Your task to perform on an android device: Show the shopping cart on target. Search for lenovo thinkpad on target, select the first entry, add it to the cart, then select checkout. Image 0: 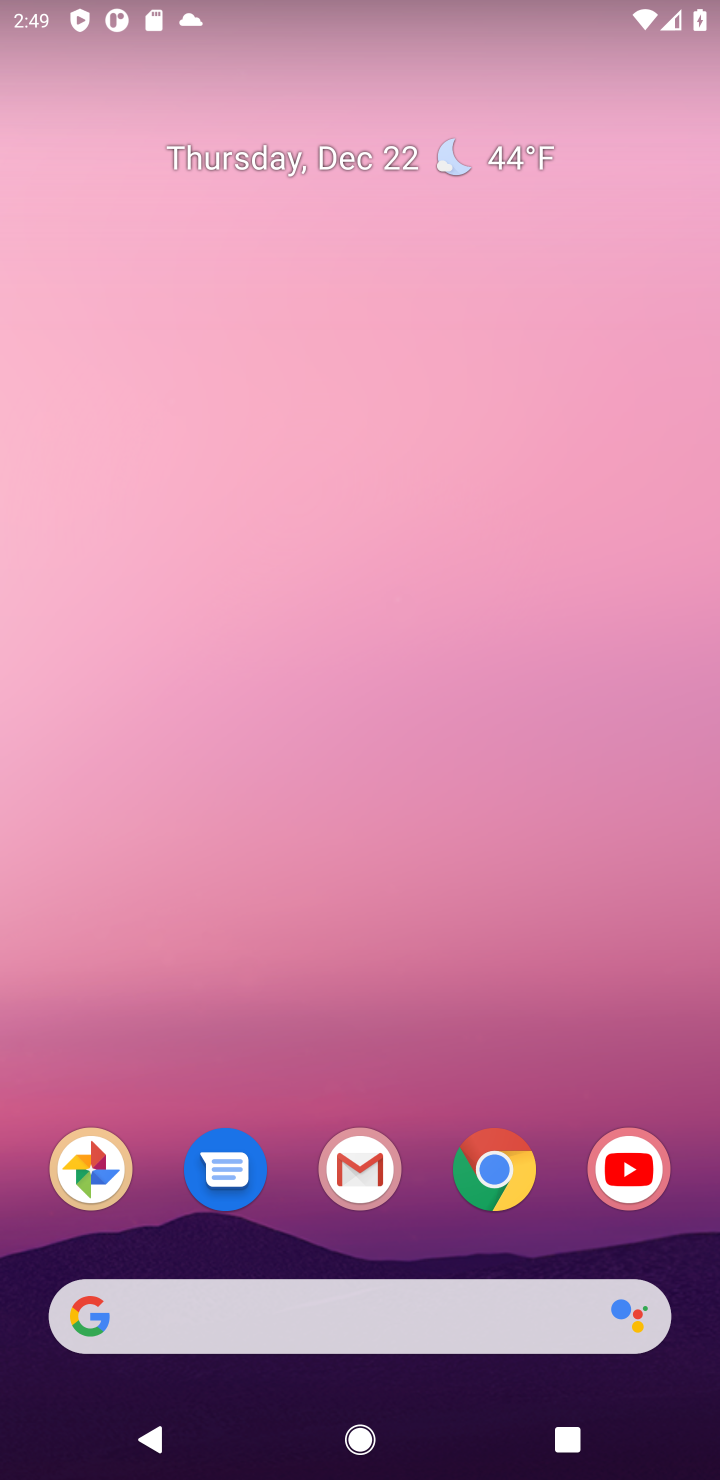
Step 0: click (466, 1169)
Your task to perform on an android device: Show the shopping cart on target. Search for lenovo thinkpad on target, select the first entry, add it to the cart, then select checkout. Image 1: 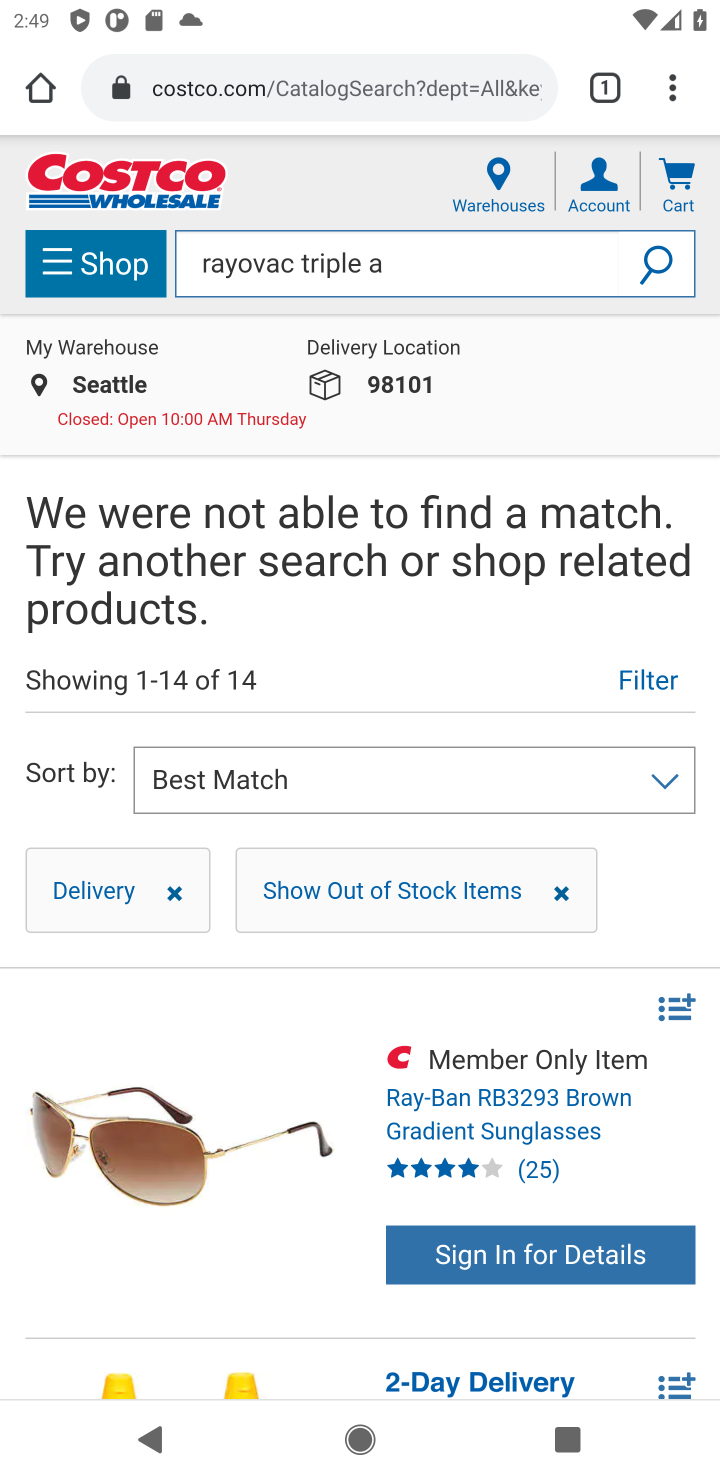
Step 1: click (270, 94)
Your task to perform on an android device: Show the shopping cart on target. Search for lenovo thinkpad on target, select the first entry, add it to the cart, then select checkout. Image 2: 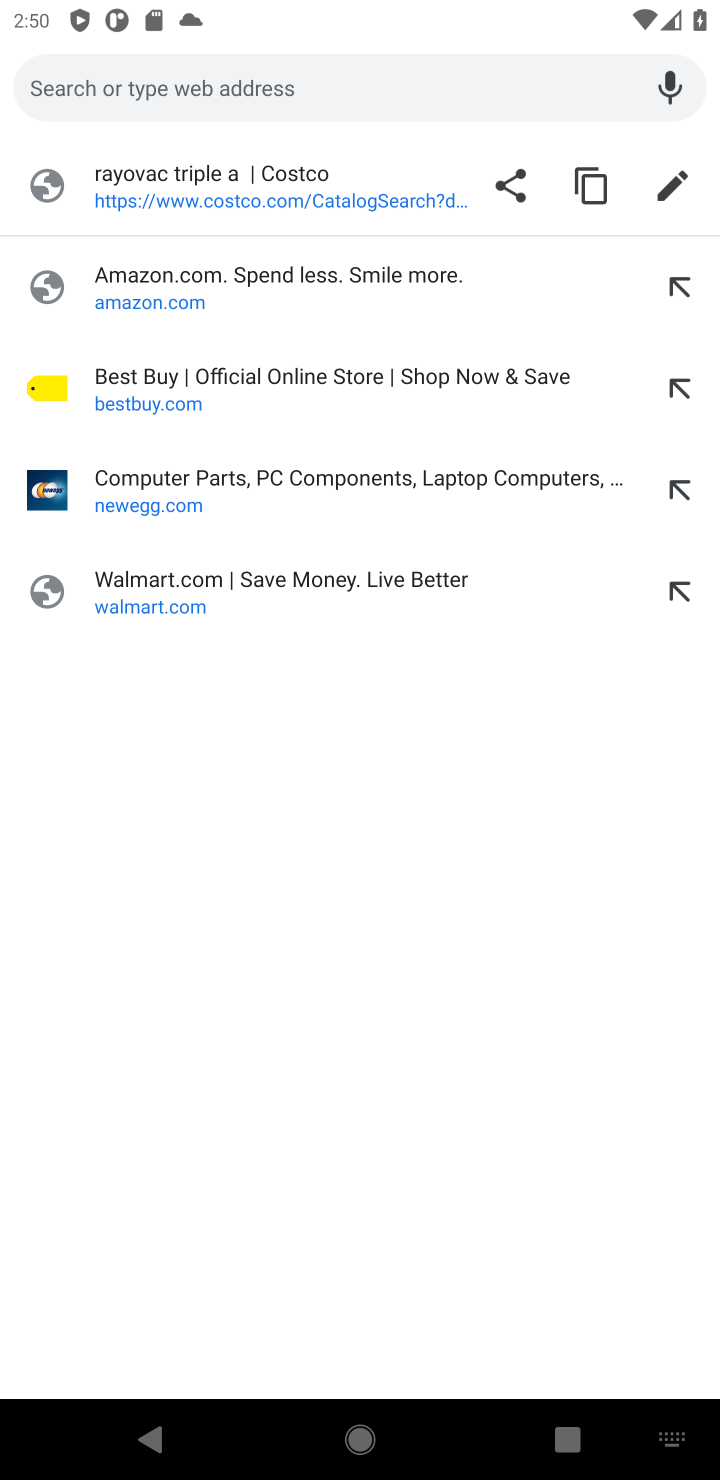
Step 2: type "target.com"
Your task to perform on an android device: Show the shopping cart on target. Search for lenovo thinkpad on target, select the first entry, add it to the cart, then select checkout. Image 3: 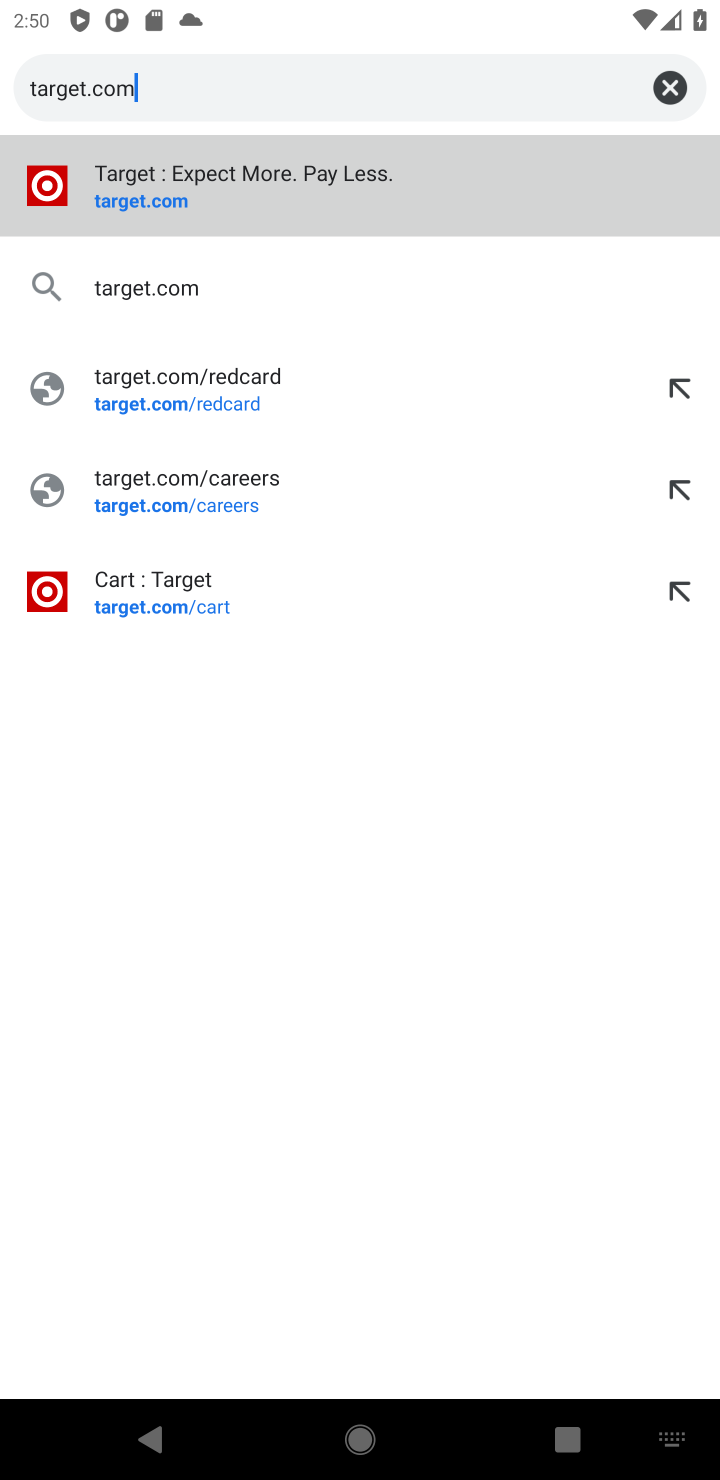
Step 3: click (133, 185)
Your task to perform on an android device: Show the shopping cart on target. Search for lenovo thinkpad on target, select the first entry, add it to the cart, then select checkout. Image 4: 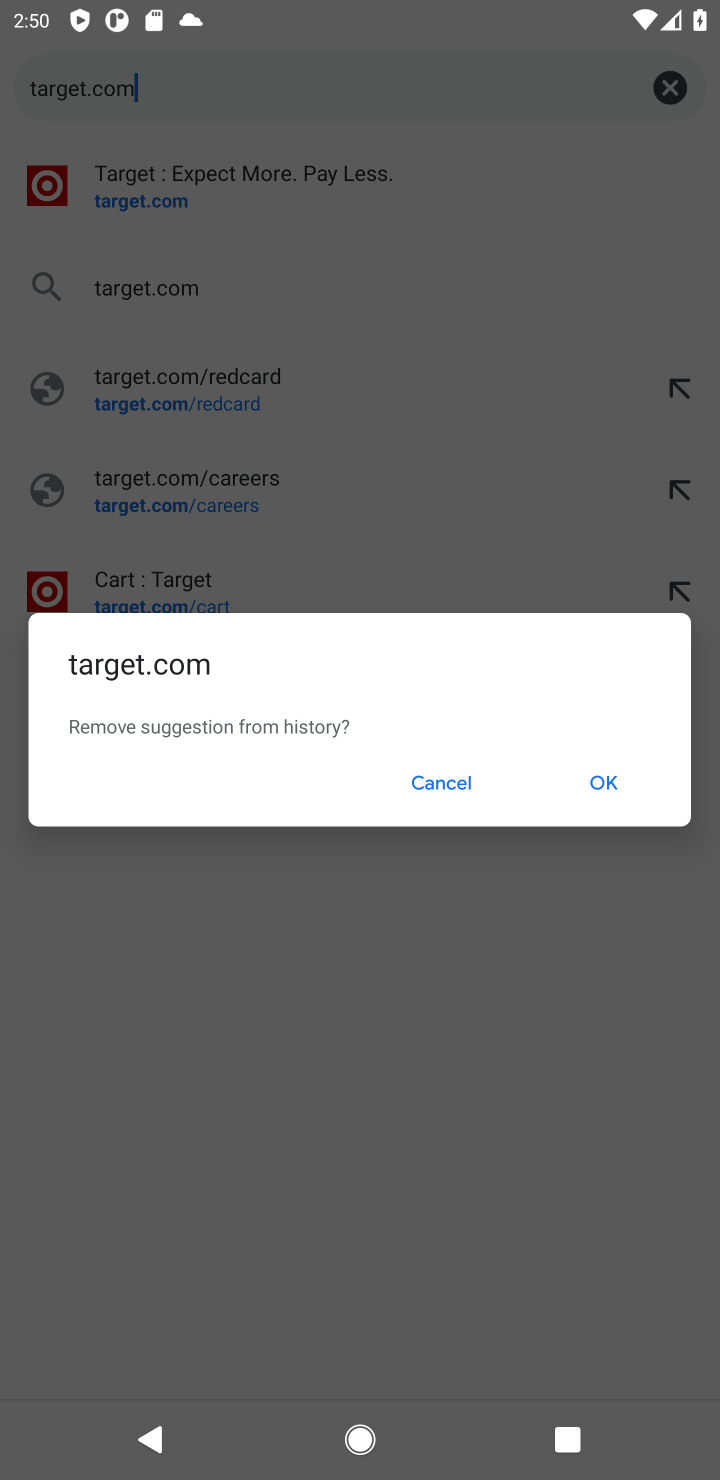
Step 4: click (448, 788)
Your task to perform on an android device: Show the shopping cart on target. Search for lenovo thinkpad on target, select the first entry, add it to the cart, then select checkout. Image 5: 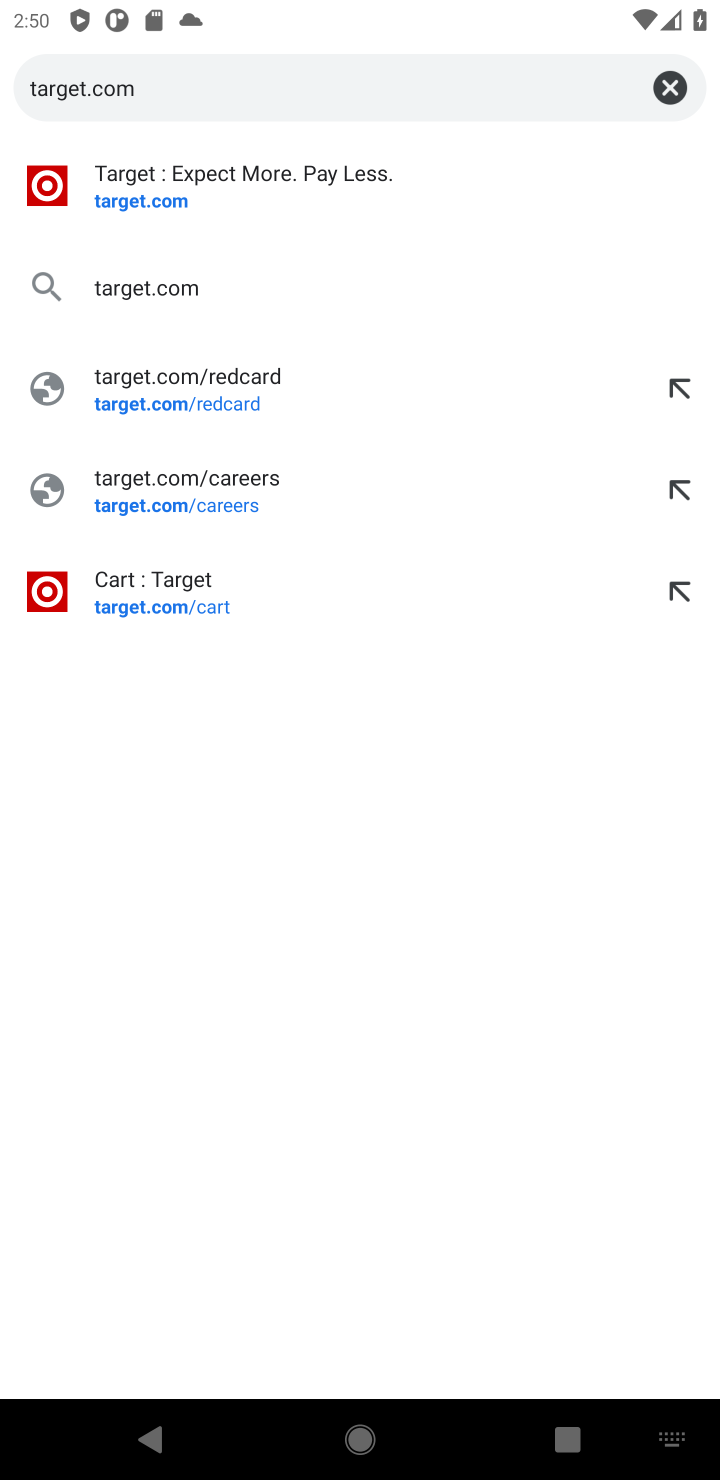
Step 5: click (117, 192)
Your task to perform on an android device: Show the shopping cart on target. Search for lenovo thinkpad on target, select the first entry, add it to the cart, then select checkout. Image 6: 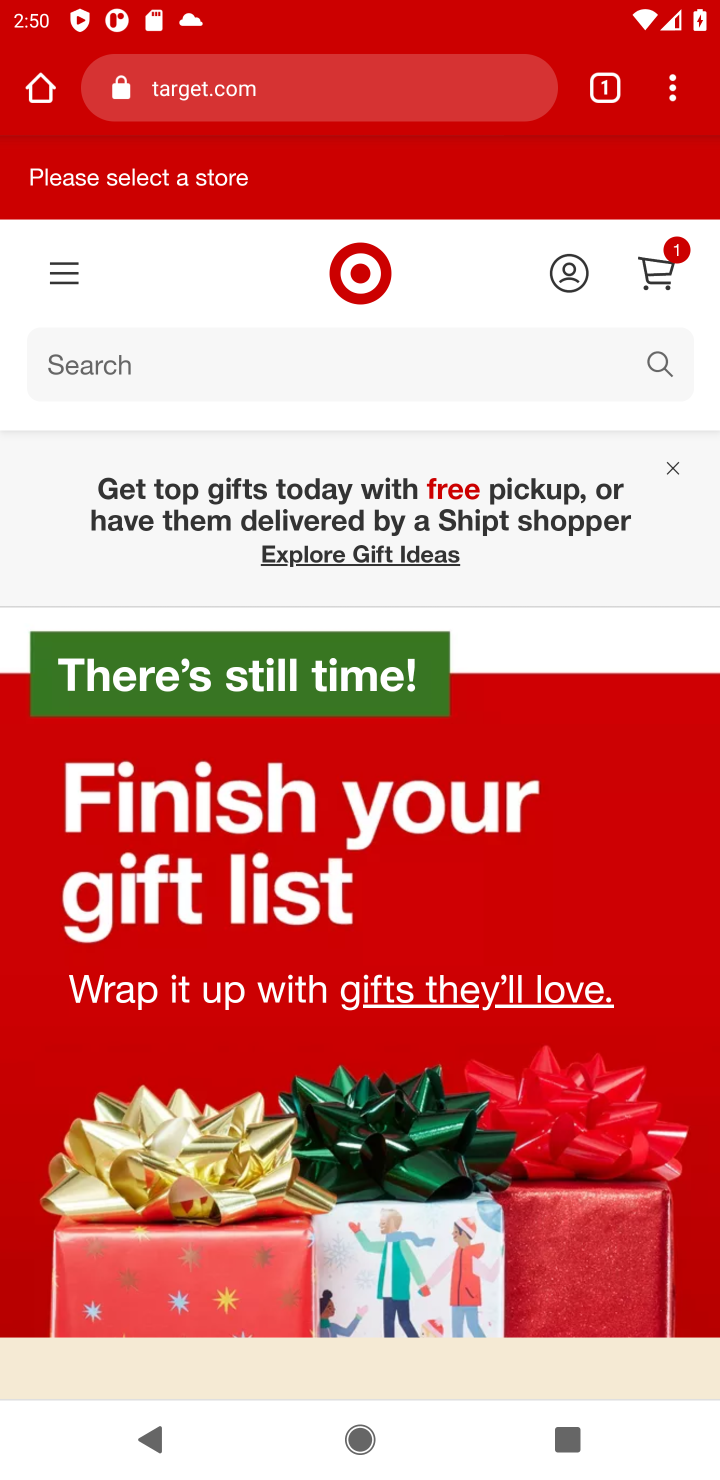
Step 6: click (657, 270)
Your task to perform on an android device: Show the shopping cart on target. Search for lenovo thinkpad on target, select the first entry, add it to the cart, then select checkout. Image 7: 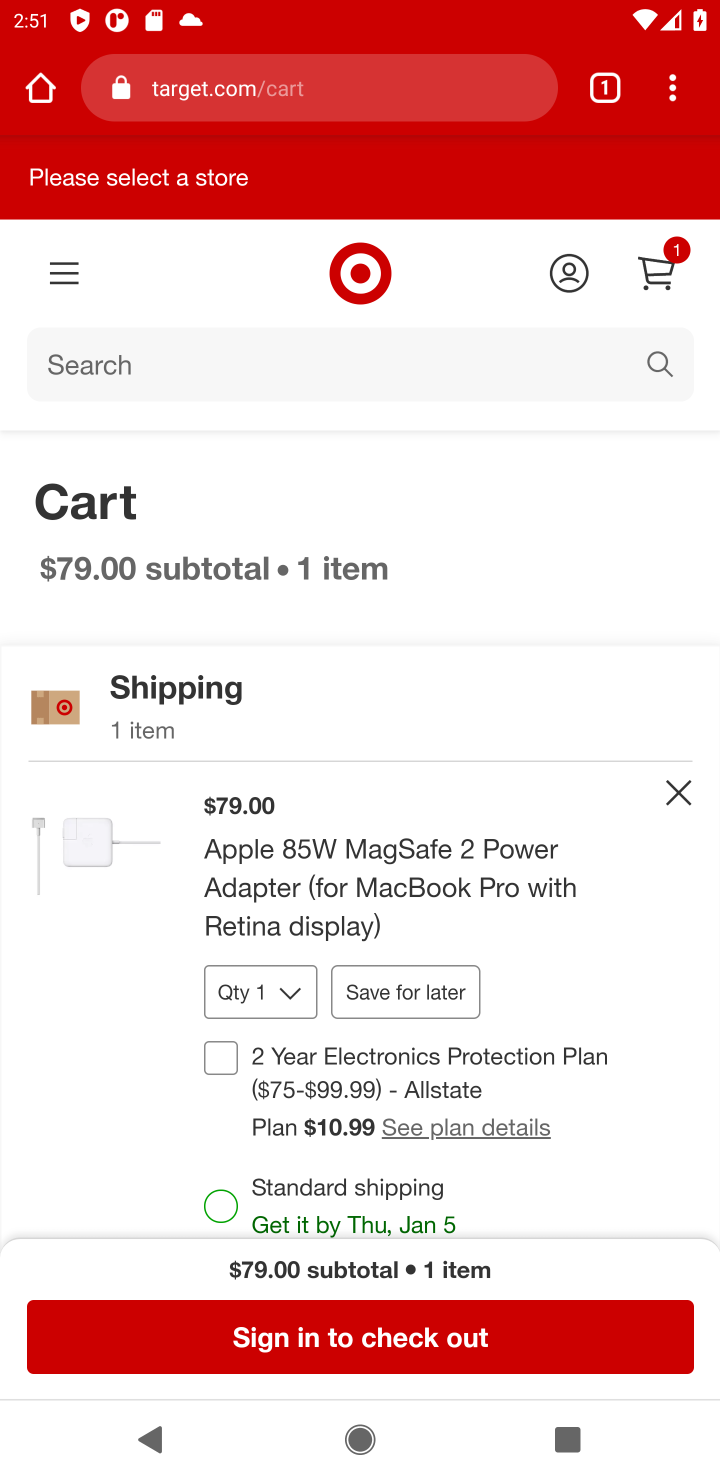
Step 7: click (115, 373)
Your task to perform on an android device: Show the shopping cart on target. Search for lenovo thinkpad on target, select the first entry, add it to the cart, then select checkout. Image 8: 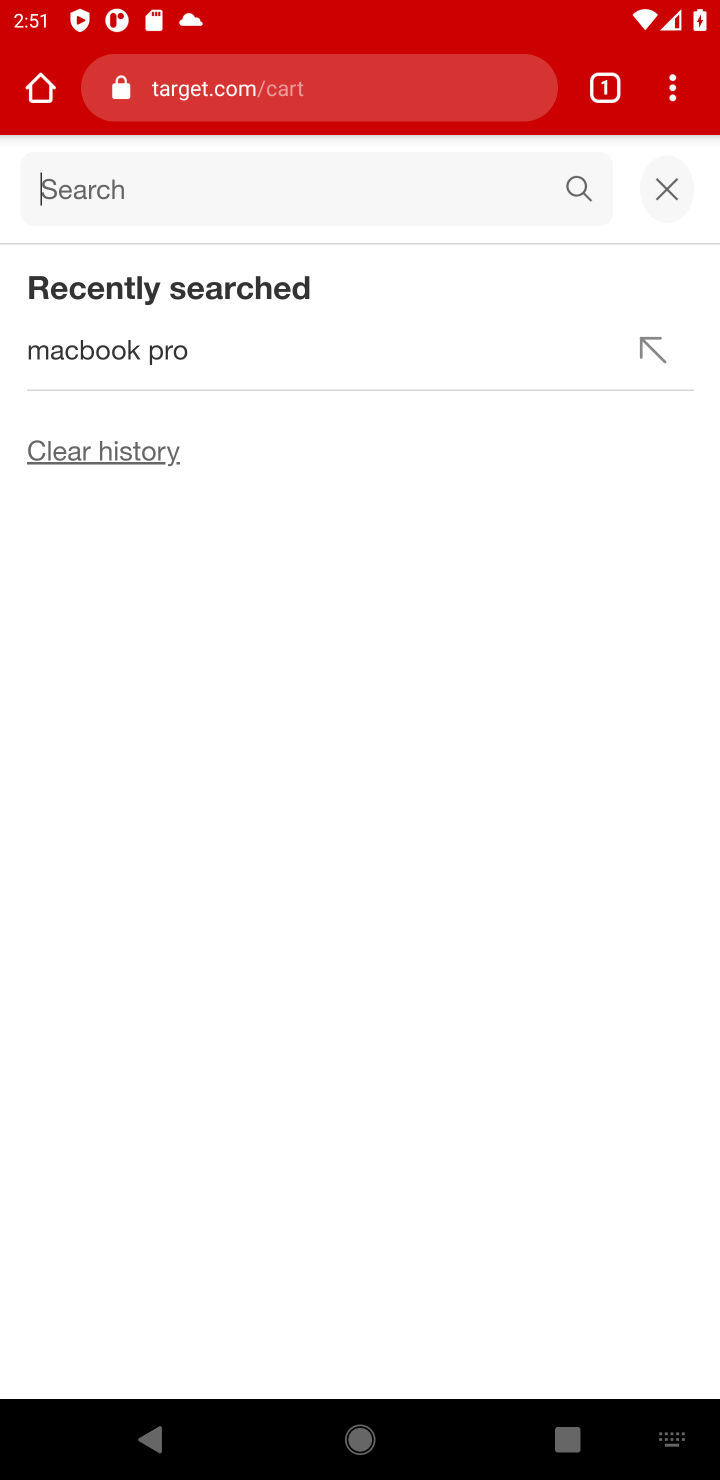
Step 8: type " lenovo thinkpad"
Your task to perform on an android device: Show the shopping cart on target. Search for lenovo thinkpad on target, select the first entry, add it to the cart, then select checkout. Image 9: 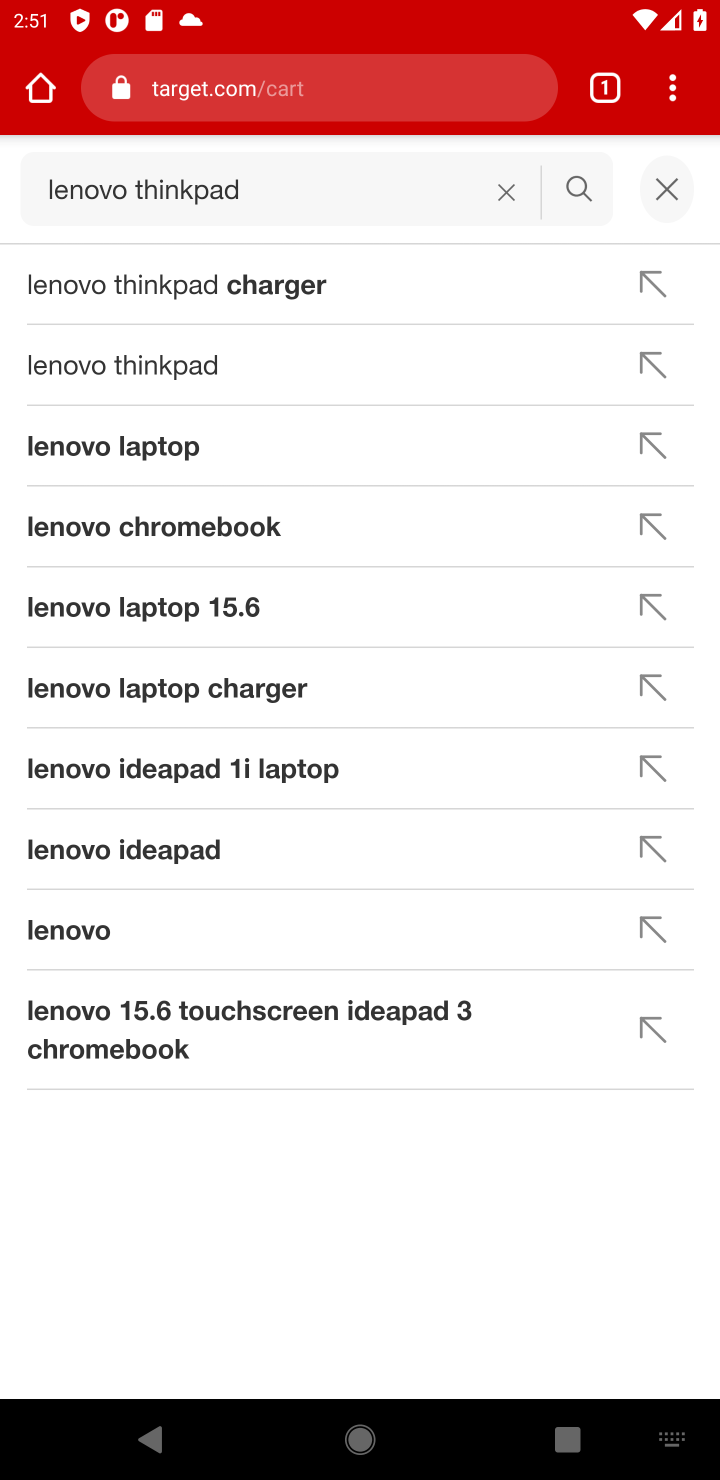
Step 9: click (570, 193)
Your task to perform on an android device: Show the shopping cart on target. Search for lenovo thinkpad on target, select the first entry, add it to the cart, then select checkout. Image 10: 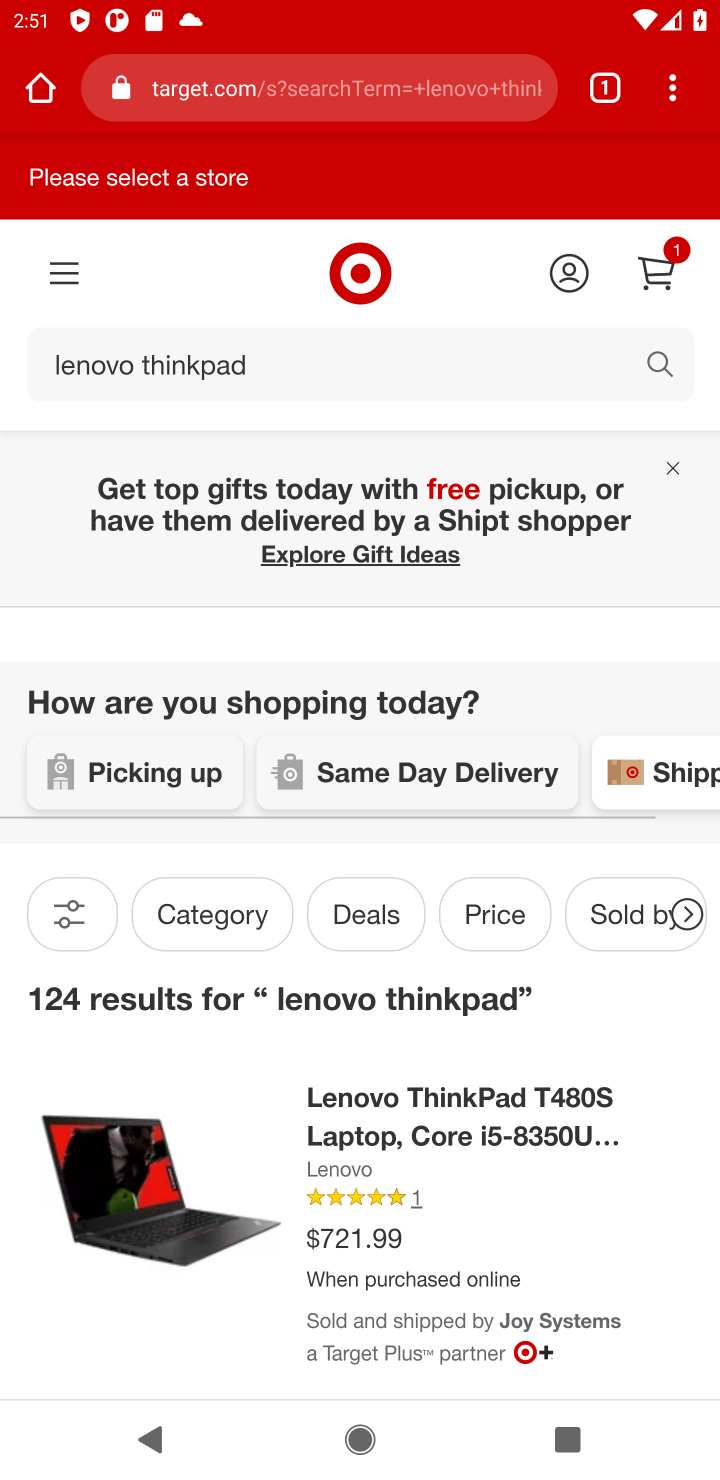
Step 10: drag from (322, 1145) to (405, 714)
Your task to perform on an android device: Show the shopping cart on target. Search for lenovo thinkpad on target, select the first entry, add it to the cart, then select checkout. Image 11: 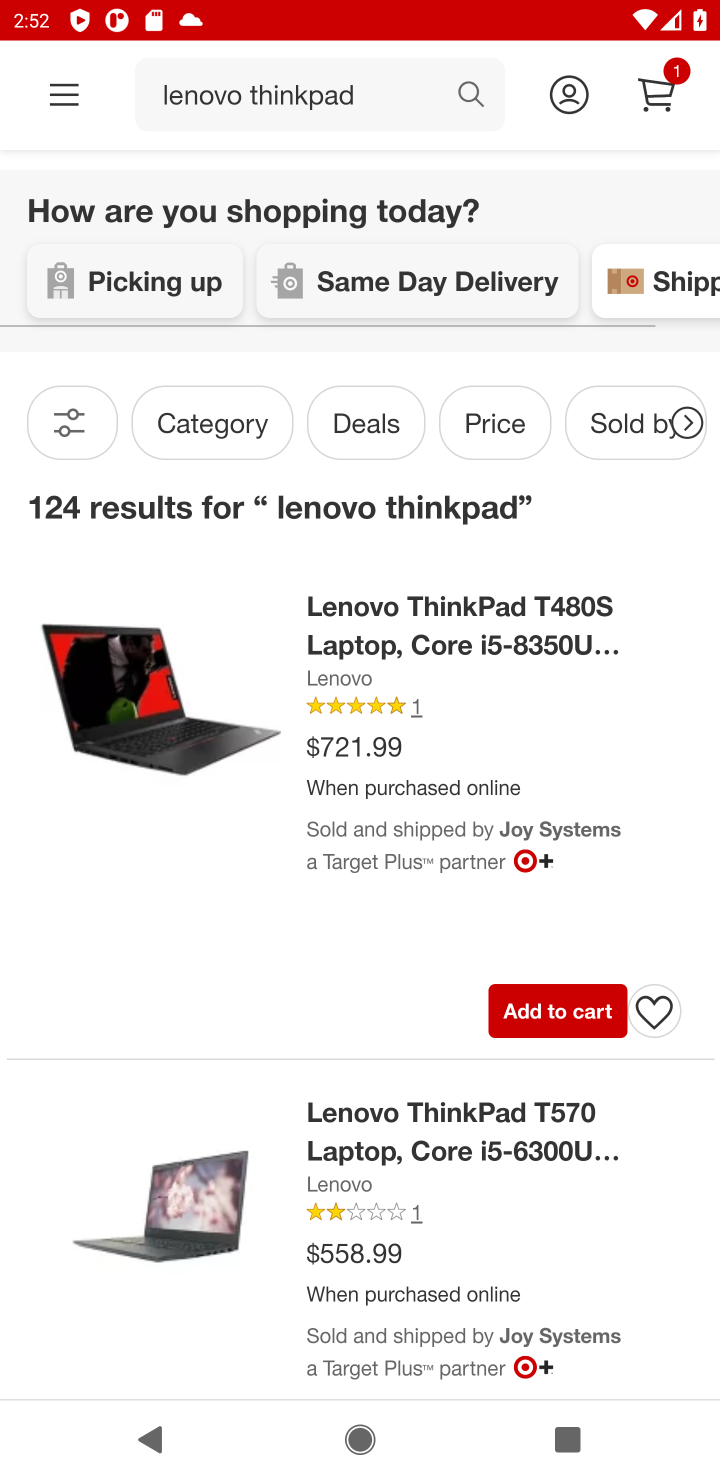
Step 11: click (551, 1010)
Your task to perform on an android device: Show the shopping cart on target. Search for lenovo thinkpad on target, select the first entry, add it to the cart, then select checkout. Image 12: 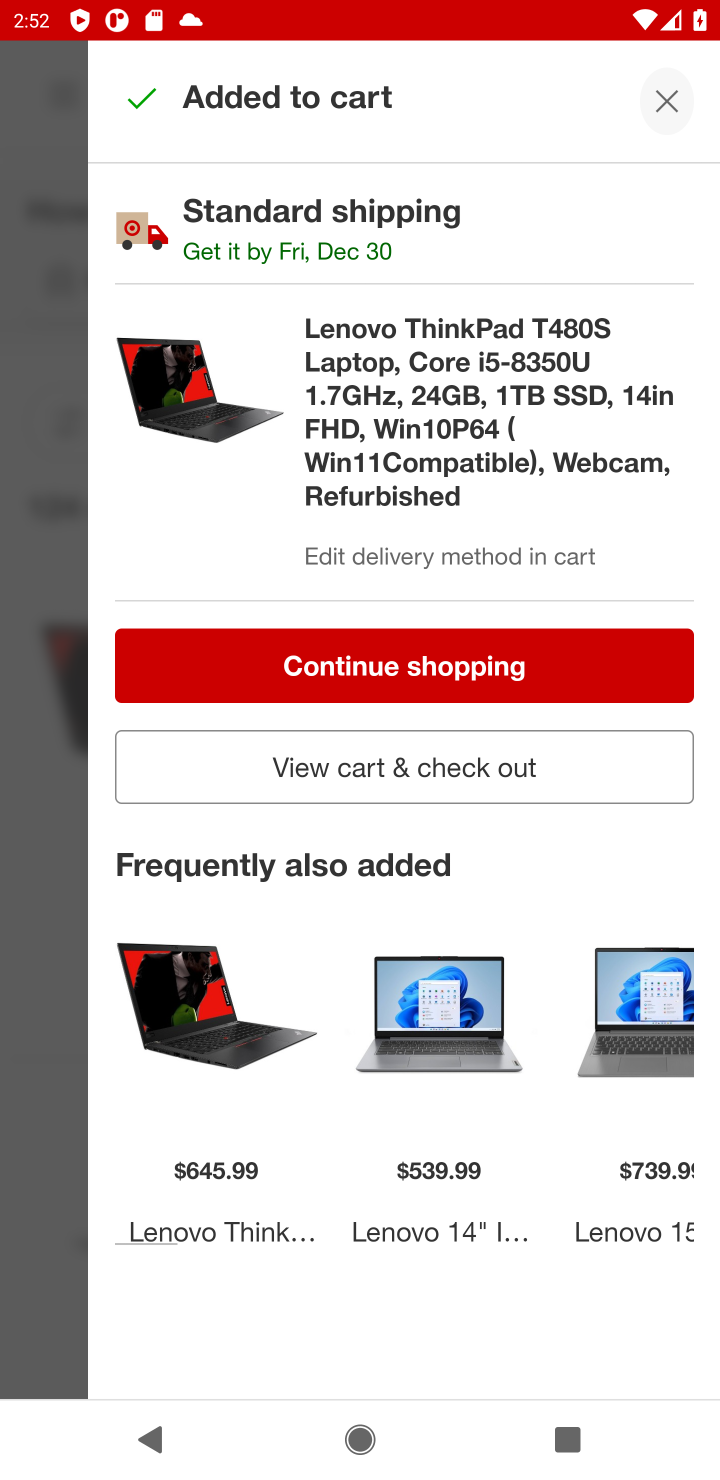
Step 12: click (435, 779)
Your task to perform on an android device: Show the shopping cart on target. Search for lenovo thinkpad on target, select the first entry, add it to the cart, then select checkout. Image 13: 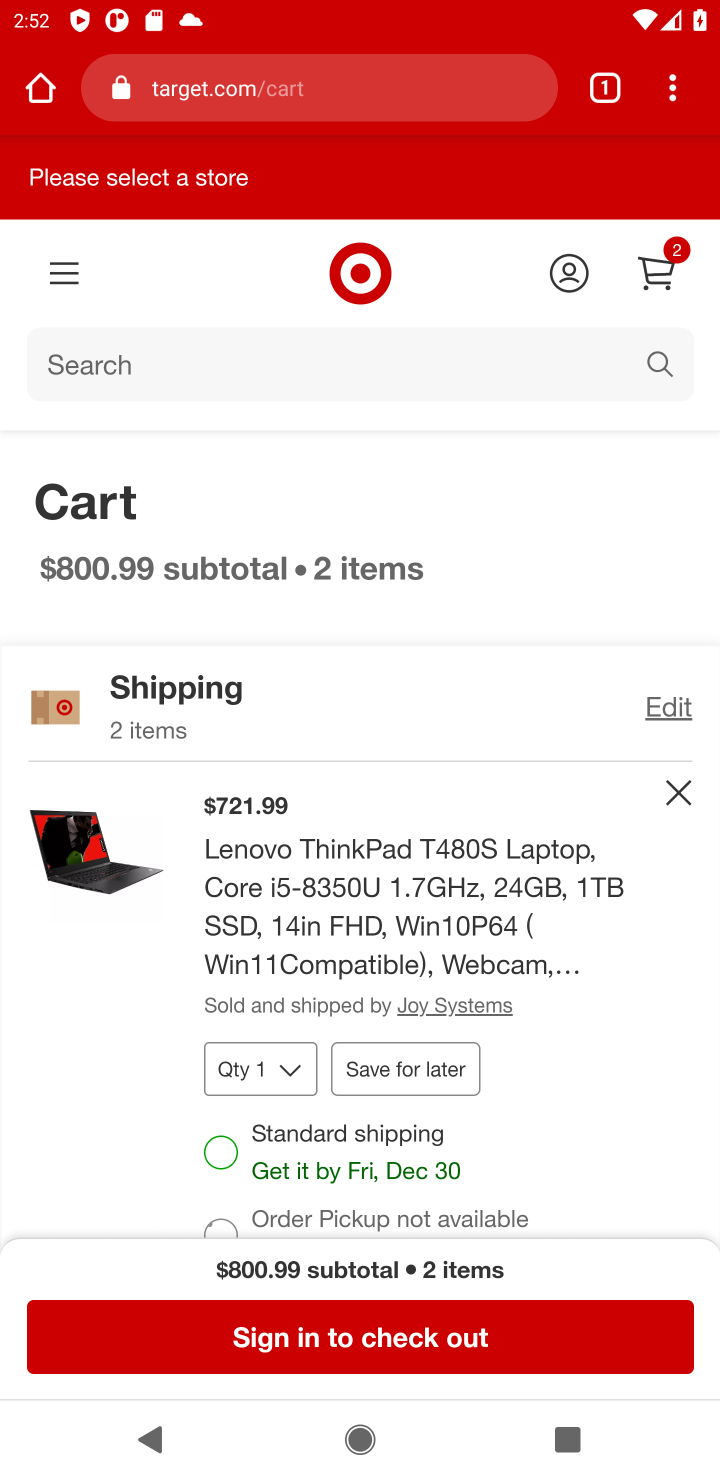
Step 13: click (405, 1334)
Your task to perform on an android device: Show the shopping cart on target. Search for lenovo thinkpad on target, select the first entry, add it to the cart, then select checkout. Image 14: 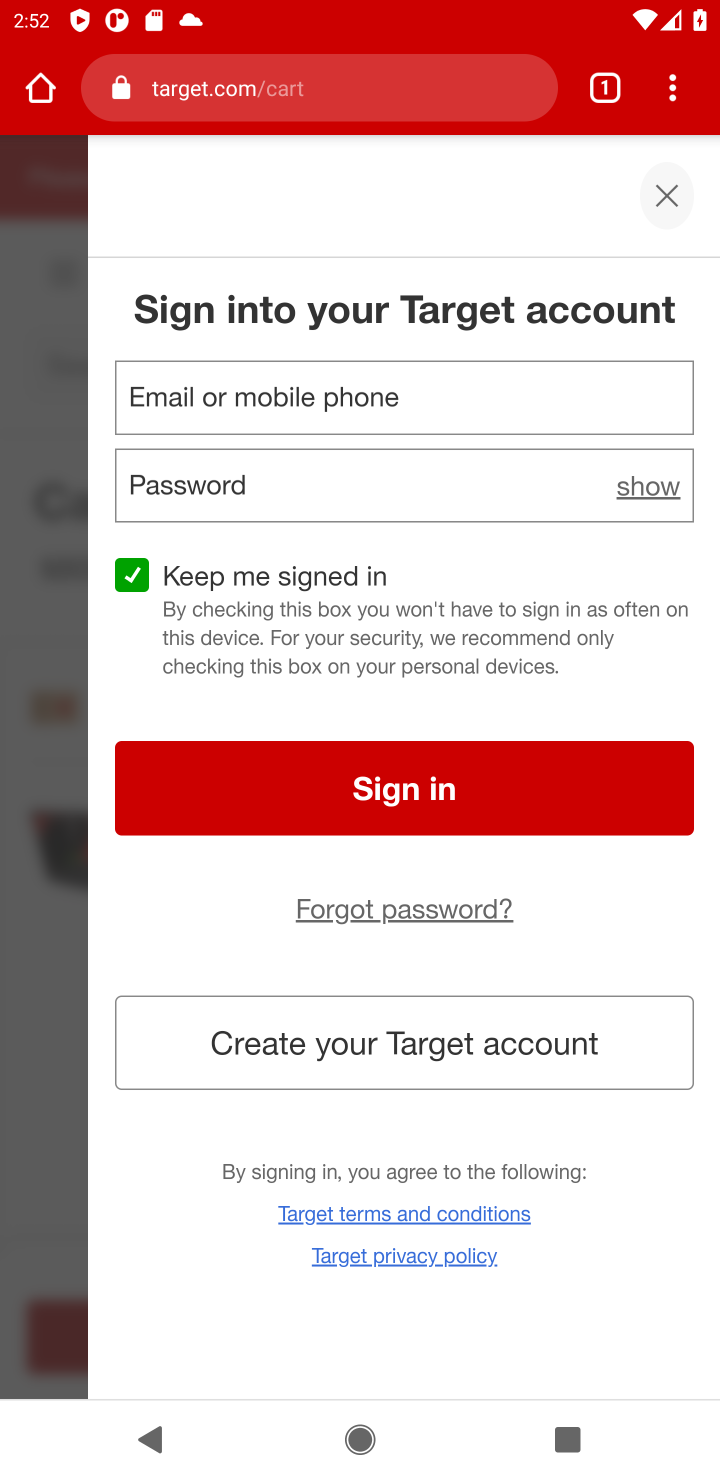
Step 14: task complete